Your task to perform on an android device: turn notification dots off Image 0: 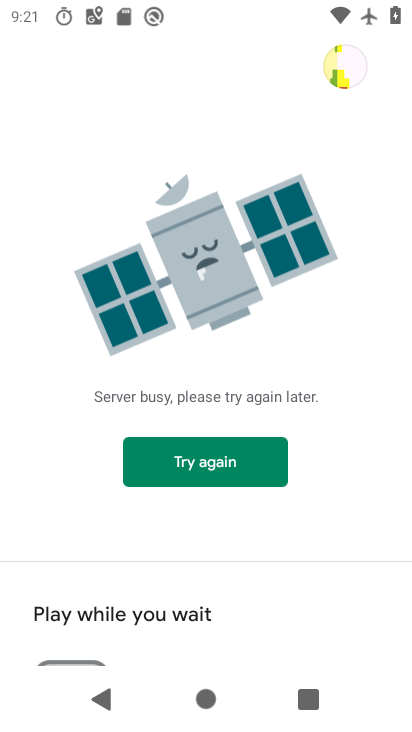
Step 0: press home button
Your task to perform on an android device: turn notification dots off Image 1: 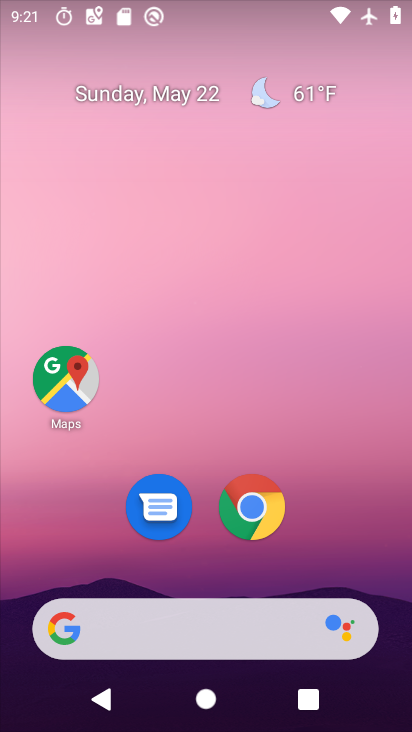
Step 1: drag from (218, 559) to (192, 21)
Your task to perform on an android device: turn notification dots off Image 2: 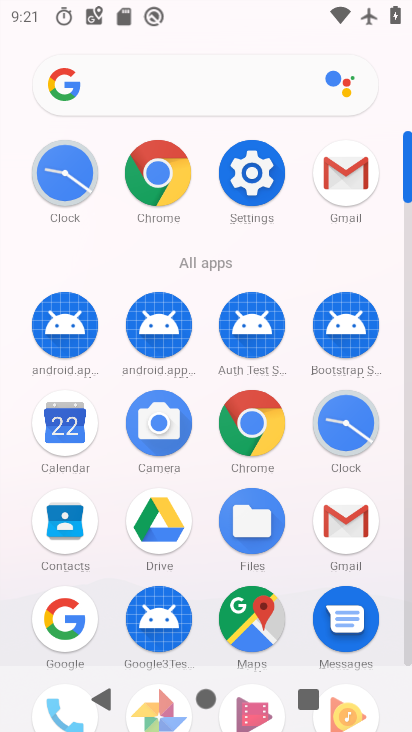
Step 2: click (248, 158)
Your task to perform on an android device: turn notification dots off Image 3: 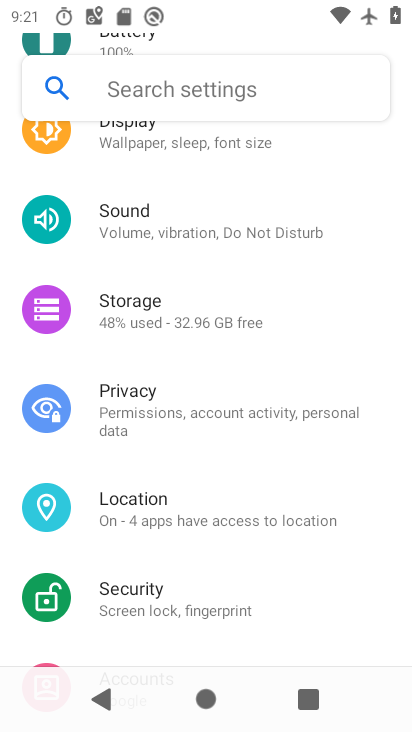
Step 3: drag from (130, 201) to (66, 604)
Your task to perform on an android device: turn notification dots off Image 4: 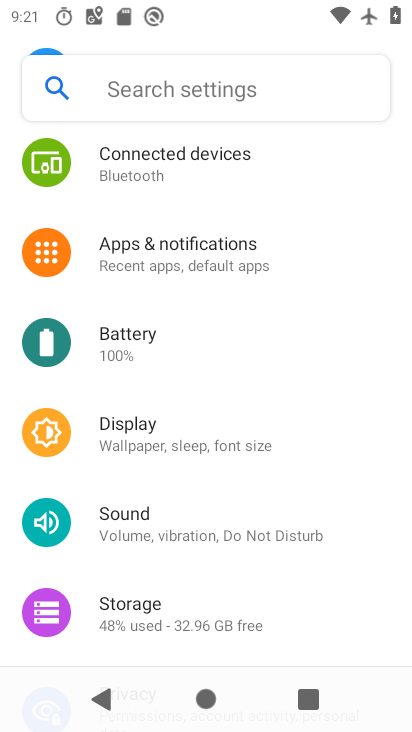
Step 4: click (186, 234)
Your task to perform on an android device: turn notification dots off Image 5: 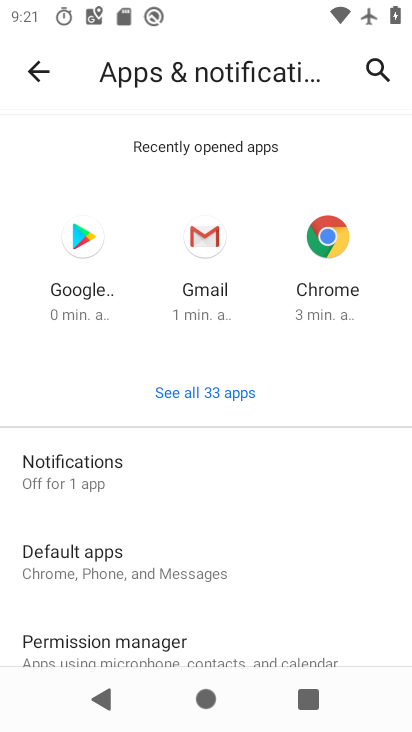
Step 5: click (106, 479)
Your task to perform on an android device: turn notification dots off Image 6: 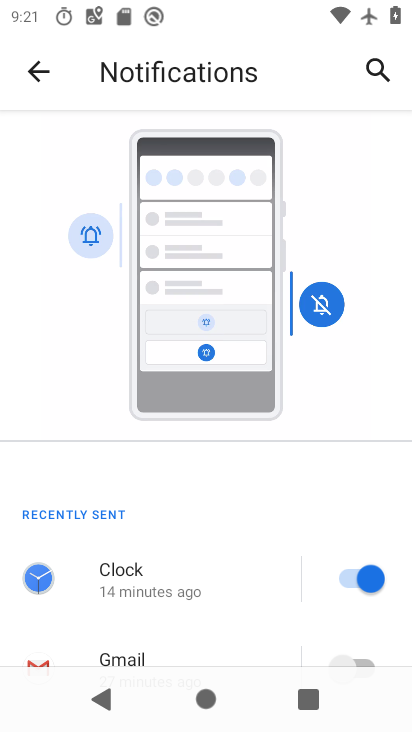
Step 6: drag from (165, 605) to (267, 78)
Your task to perform on an android device: turn notification dots off Image 7: 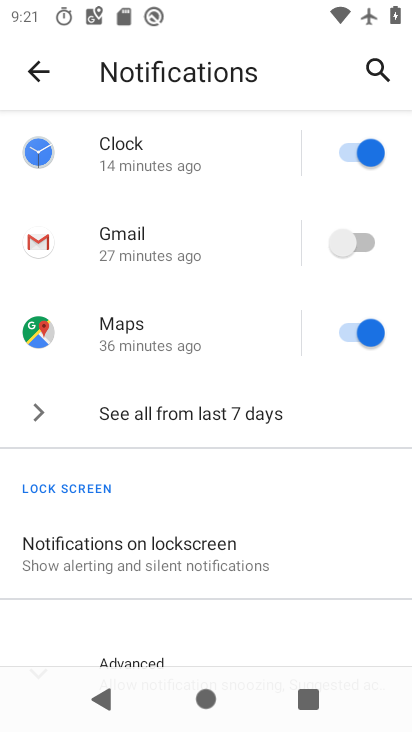
Step 7: drag from (126, 613) to (203, 123)
Your task to perform on an android device: turn notification dots off Image 8: 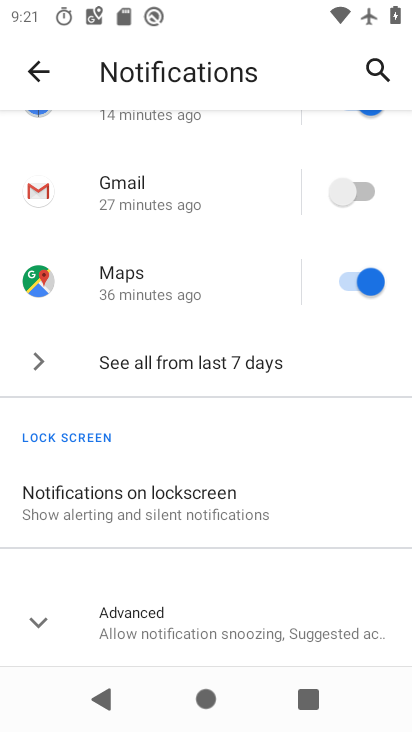
Step 8: click (120, 611)
Your task to perform on an android device: turn notification dots off Image 9: 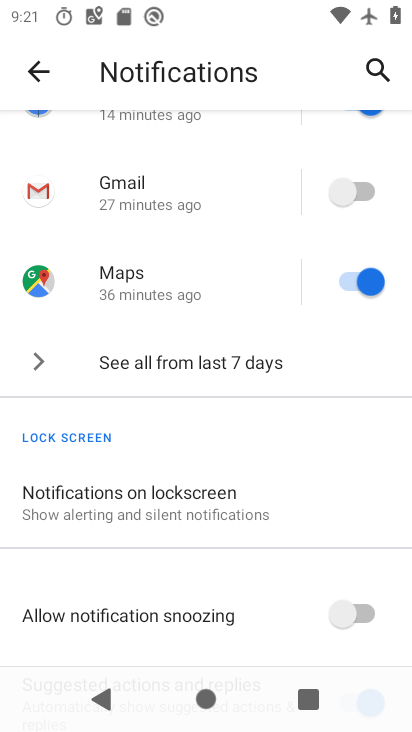
Step 9: drag from (120, 611) to (240, 82)
Your task to perform on an android device: turn notification dots off Image 10: 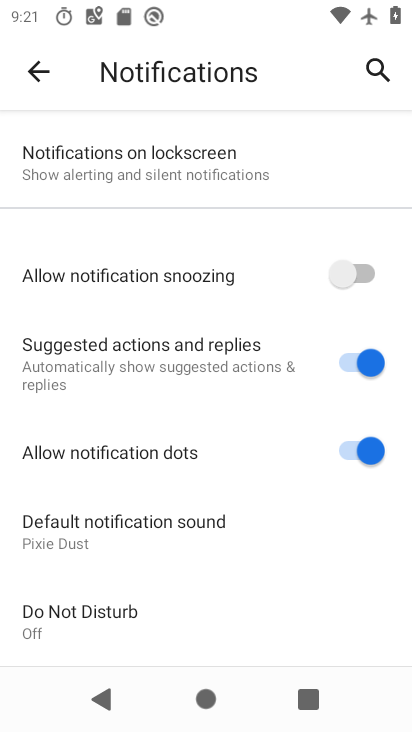
Step 10: click (366, 450)
Your task to perform on an android device: turn notification dots off Image 11: 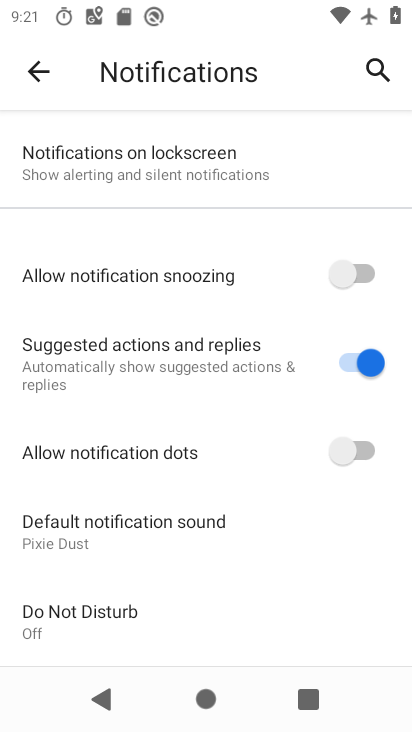
Step 11: task complete